Your task to perform on an android device: Go to network settings Image 0: 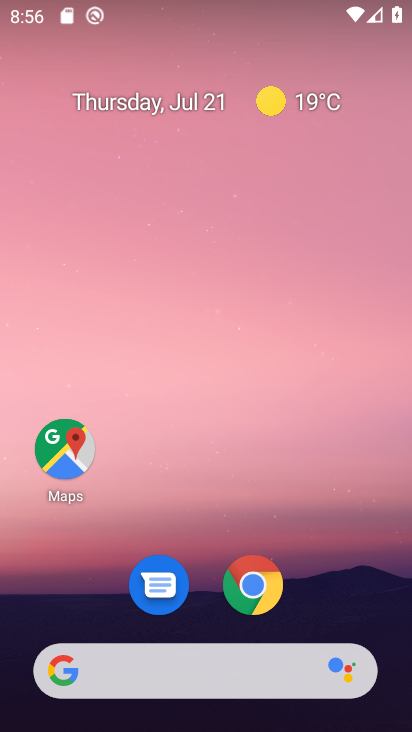
Step 0: drag from (322, 562) to (330, 34)
Your task to perform on an android device: Go to network settings Image 1: 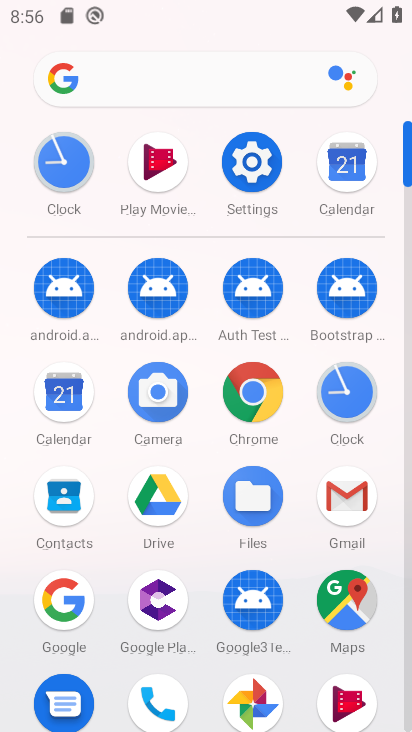
Step 1: click (249, 171)
Your task to perform on an android device: Go to network settings Image 2: 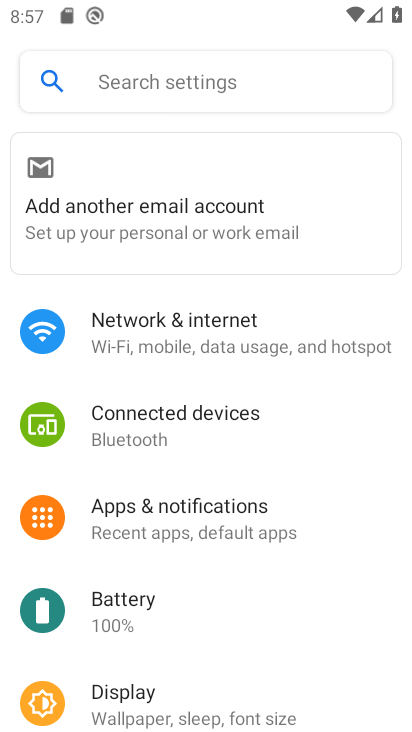
Step 2: click (210, 336)
Your task to perform on an android device: Go to network settings Image 3: 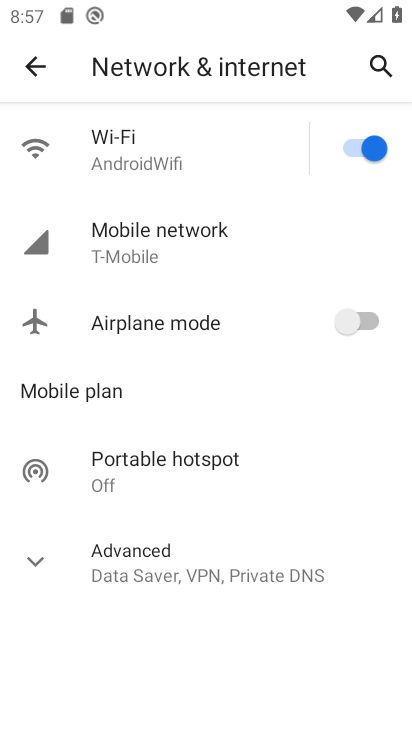
Step 3: task complete